Your task to perform on an android device: Open location settings Image 0: 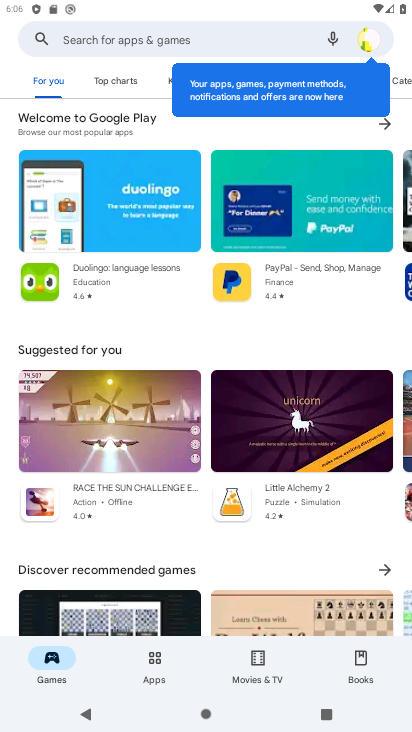
Step 0: press home button
Your task to perform on an android device: Open location settings Image 1: 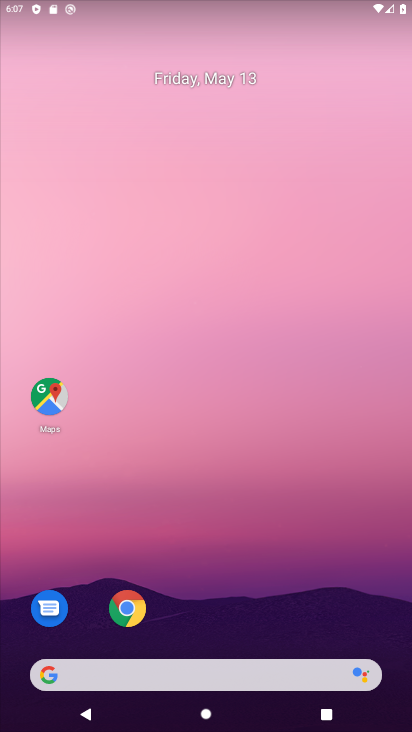
Step 1: drag from (232, 589) to (301, 93)
Your task to perform on an android device: Open location settings Image 2: 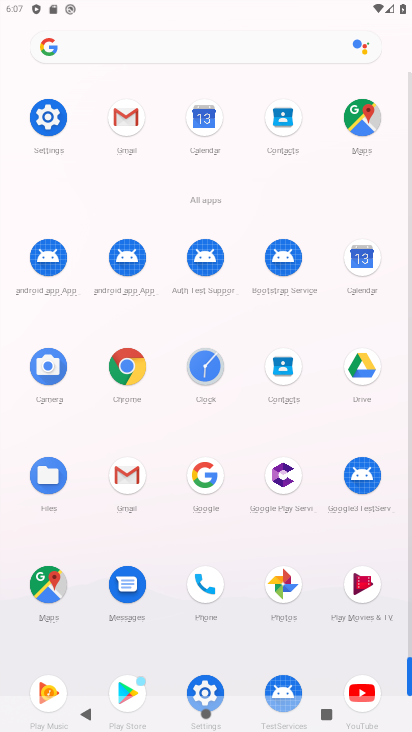
Step 2: drag from (224, 647) to (253, 512)
Your task to perform on an android device: Open location settings Image 3: 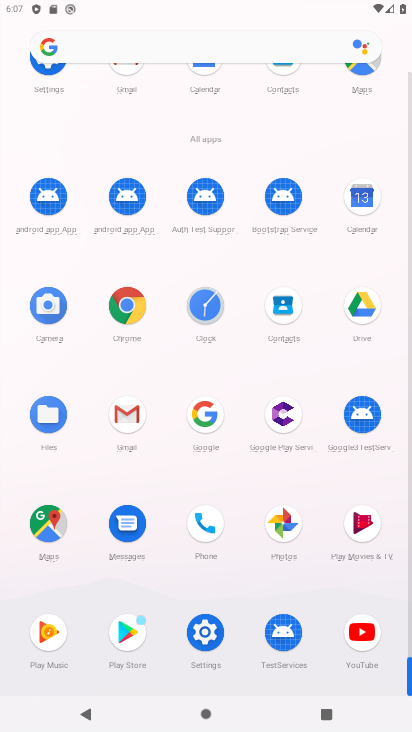
Step 3: click (209, 638)
Your task to perform on an android device: Open location settings Image 4: 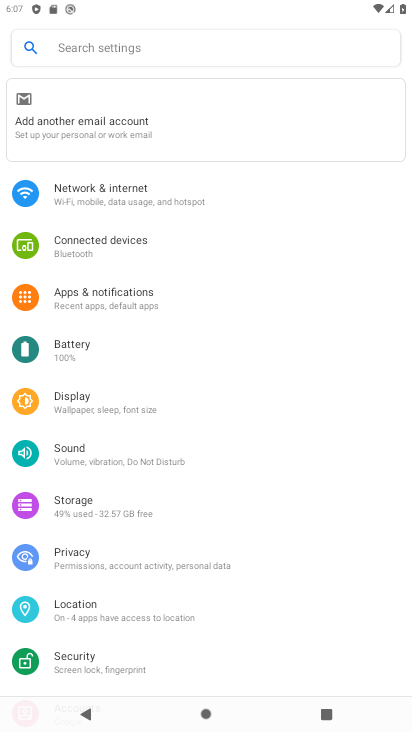
Step 4: click (87, 619)
Your task to perform on an android device: Open location settings Image 5: 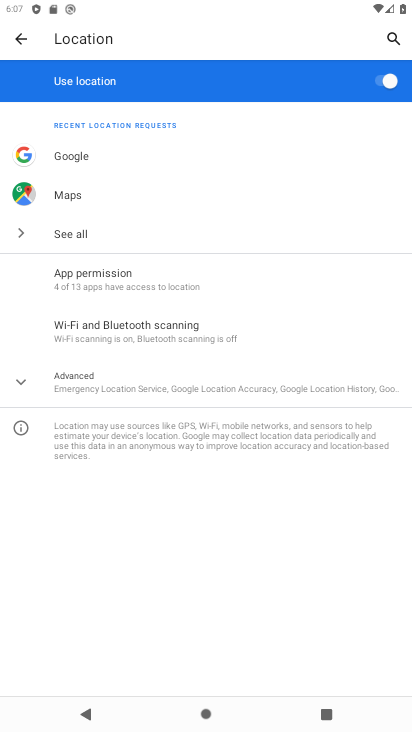
Step 5: task complete